Your task to perform on an android device: see creations saved in the google photos Image 0: 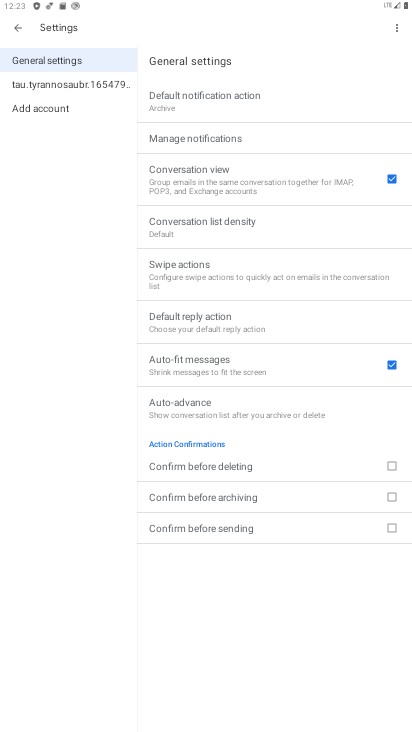
Step 0: press home button
Your task to perform on an android device: see creations saved in the google photos Image 1: 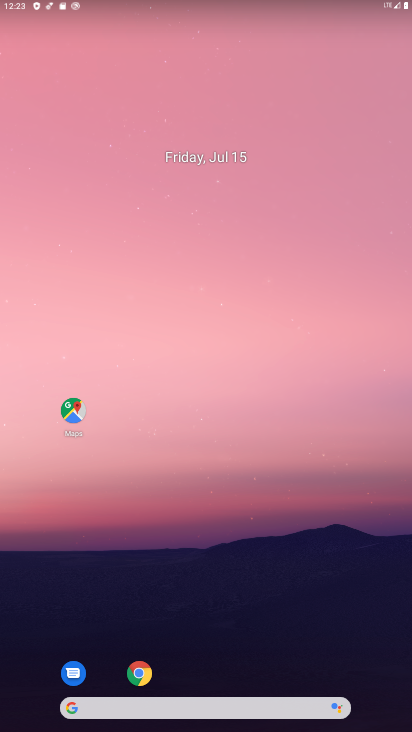
Step 1: drag from (392, 721) to (321, 12)
Your task to perform on an android device: see creations saved in the google photos Image 2: 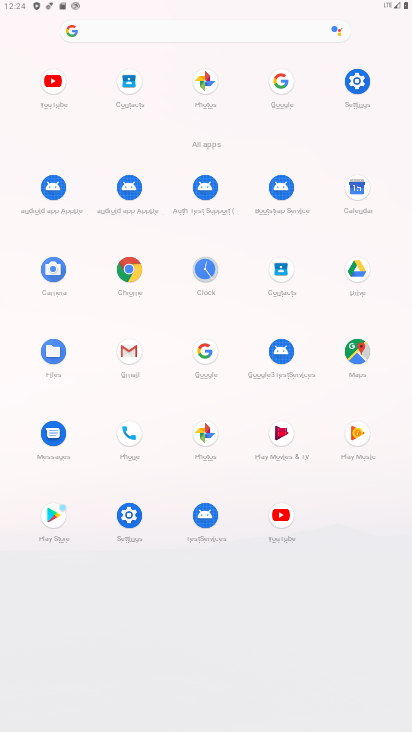
Step 2: click (198, 431)
Your task to perform on an android device: see creations saved in the google photos Image 3: 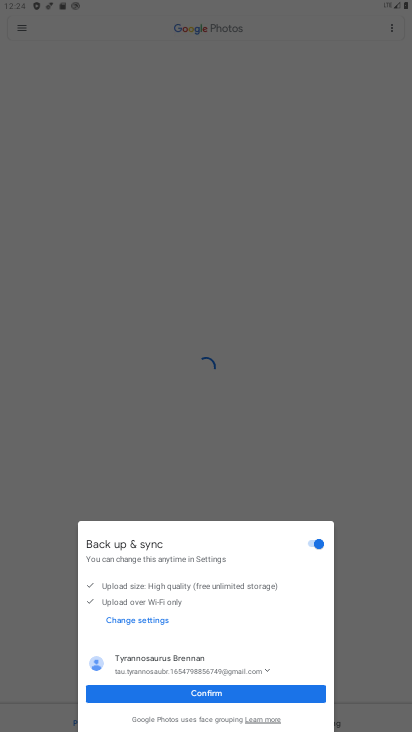
Step 3: task complete